Your task to perform on an android device: find snoozed emails in the gmail app Image 0: 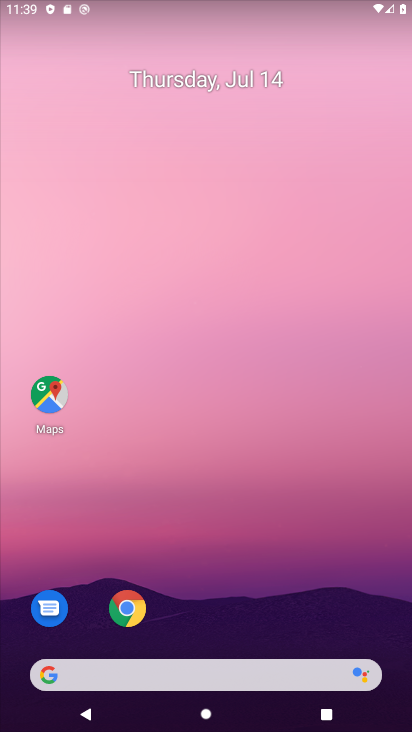
Step 0: drag from (262, 579) to (266, 181)
Your task to perform on an android device: find snoozed emails in the gmail app Image 1: 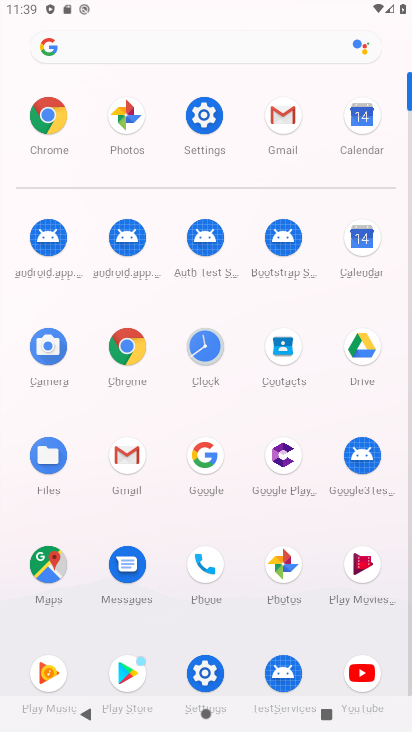
Step 1: click (113, 460)
Your task to perform on an android device: find snoozed emails in the gmail app Image 2: 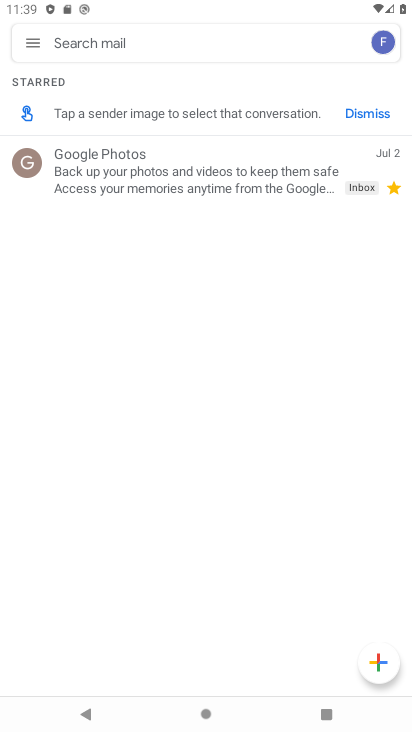
Step 2: click (287, 153)
Your task to perform on an android device: find snoozed emails in the gmail app Image 3: 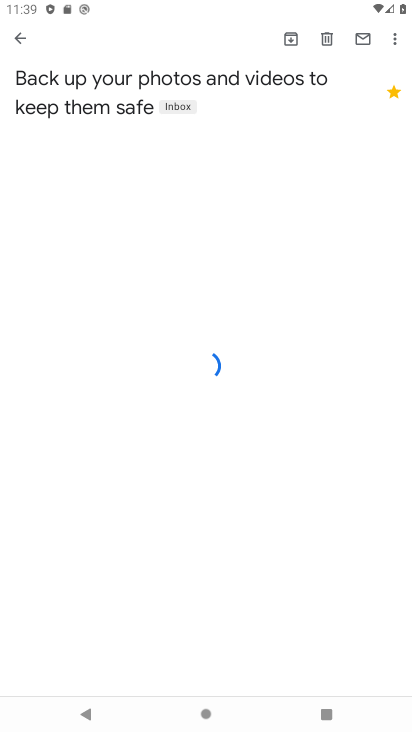
Step 3: click (391, 33)
Your task to perform on an android device: find snoozed emails in the gmail app Image 4: 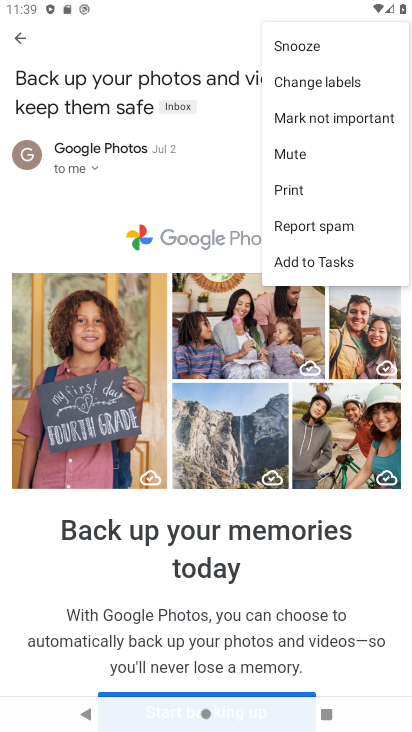
Step 4: press back button
Your task to perform on an android device: find snoozed emails in the gmail app Image 5: 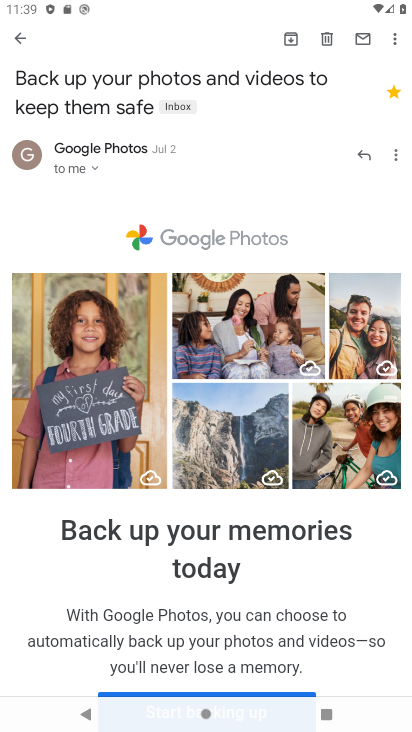
Step 5: press back button
Your task to perform on an android device: find snoozed emails in the gmail app Image 6: 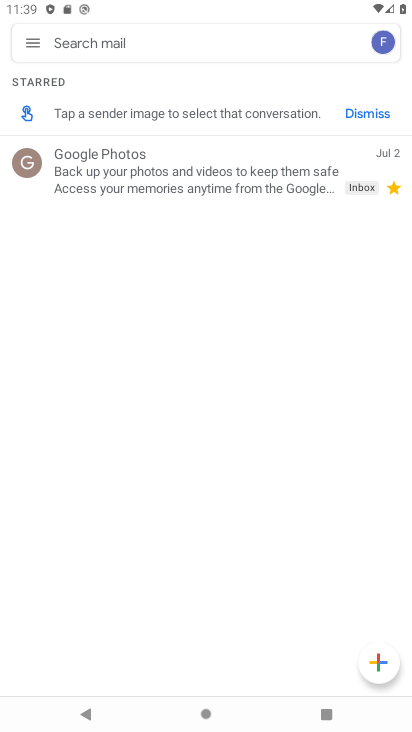
Step 6: click (31, 45)
Your task to perform on an android device: find snoozed emails in the gmail app Image 7: 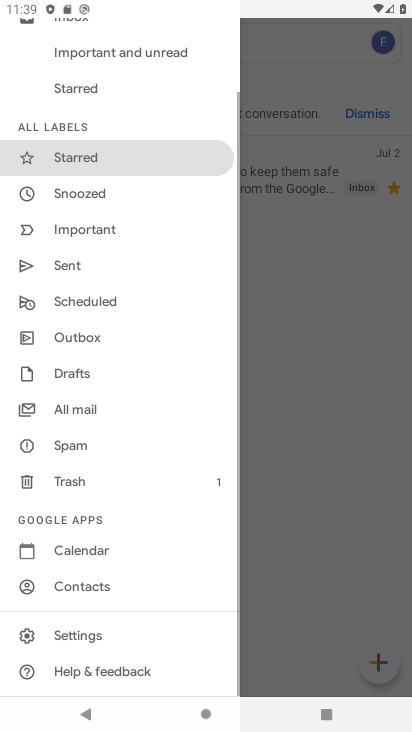
Step 7: click (86, 188)
Your task to perform on an android device: find snoozed emails in the gmail app Image 8: 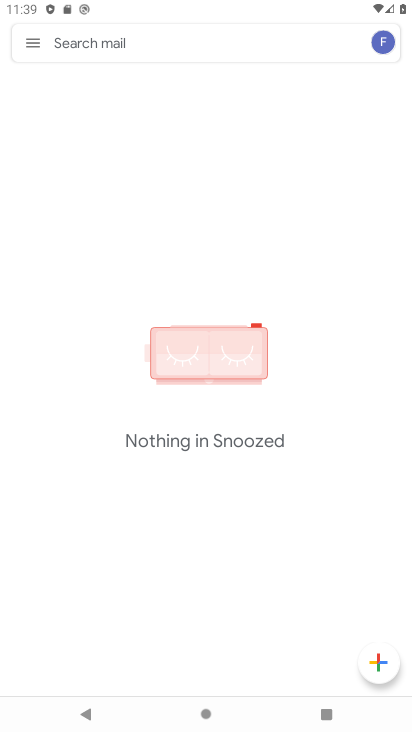
Step 8: task complete